Your task to perform on an android device: What is the recent news? Image 0: 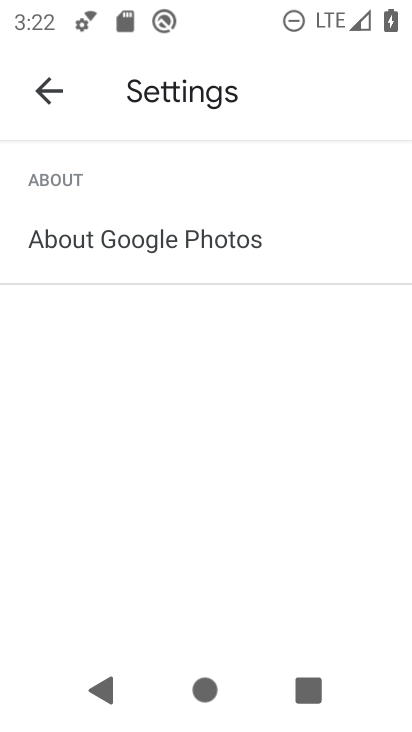
Step 0: press home button
Your task to perform on an android device: What is the recent news? Image 1: 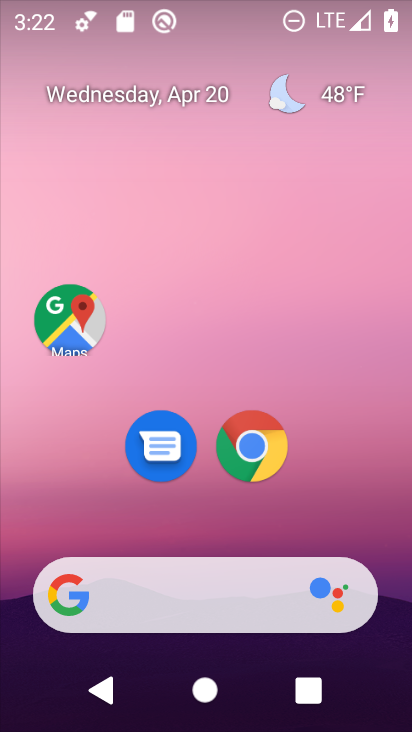
Step 1: drag from (202, 532) to (220, 43)
Your task to perform on an android device: What is the recent news? Image 2: 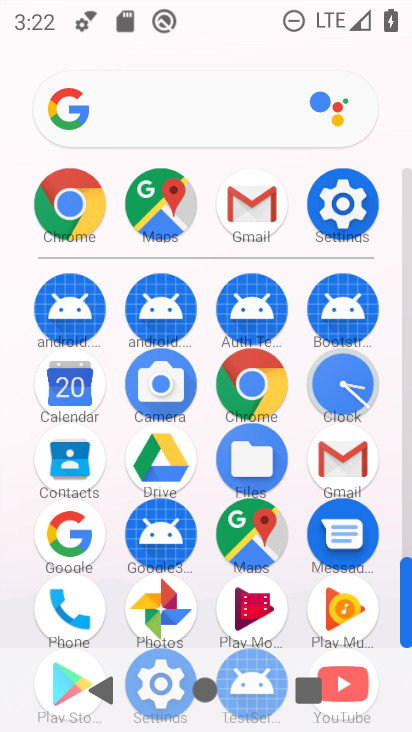
Step 2: drag from (207, 511) to (227, 197)
Your task to perform on an android device: What is the recent news? Image 3: 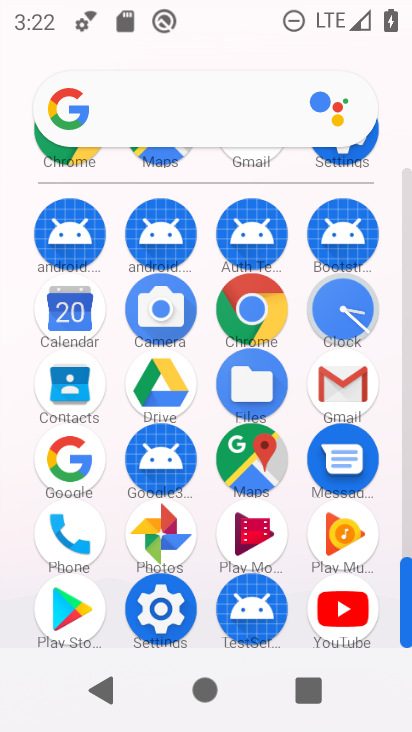
Step 3: click (69, 458)
Your task to perform on an android device: What is the recent news? Image 4: 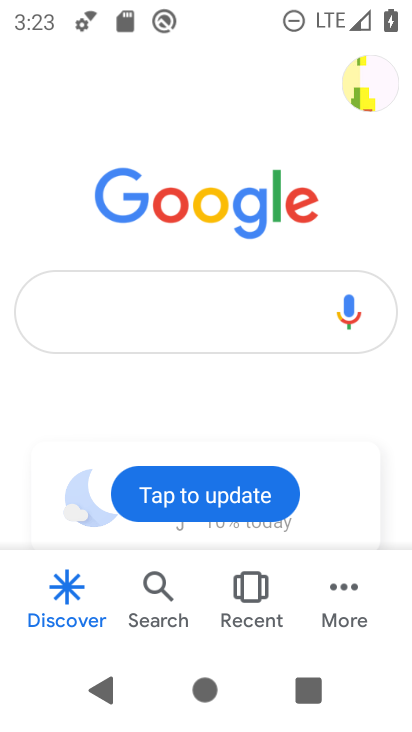
Step 4: click (170, 328)
Your task to perform on an android device: What is the recent news? Image 5: 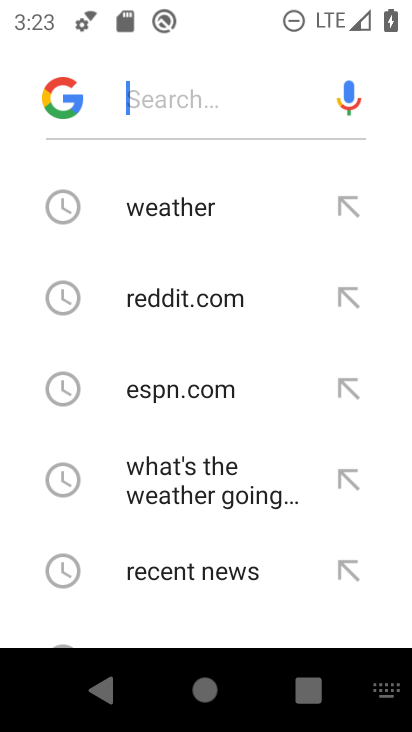
Step 5: click (143, 565)
Your task to perform on an android device: What is the recent news? Image 6: 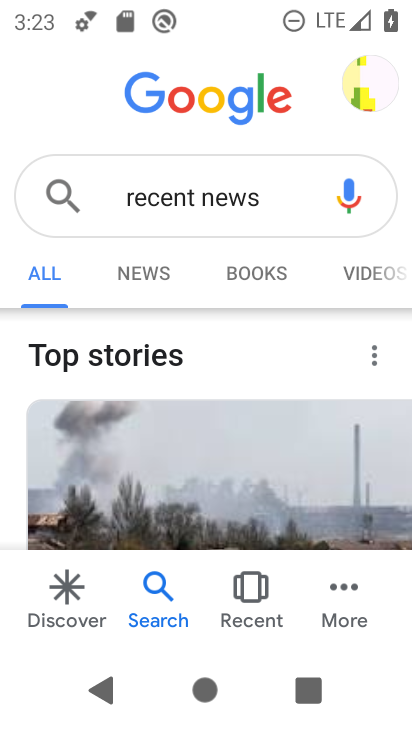
Step 6: task complete